Your task to perform on an android device: snooze an email in the gmail app Image 0: 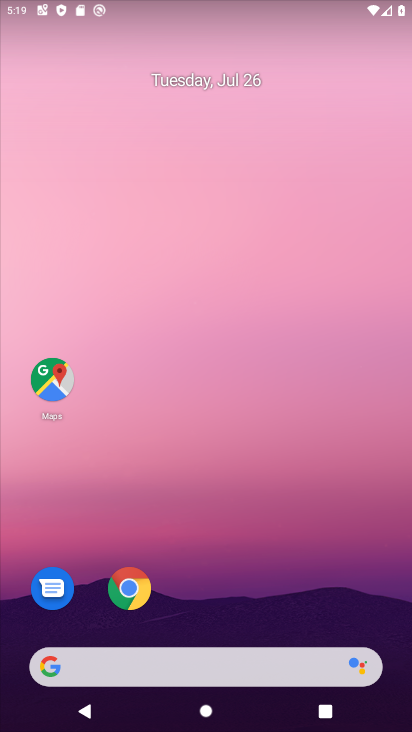
Step 0: drag from (232, 678) to (272, 107)
Your task to perform on an android device: snooze an email in the gmail app Image 1: 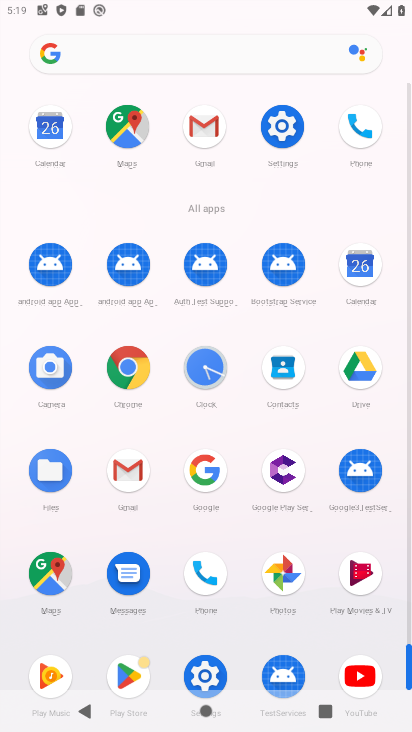
Step 1: click (139, 478)
Your task to perform on an android device: snooze an email in the gmail app Image 2: 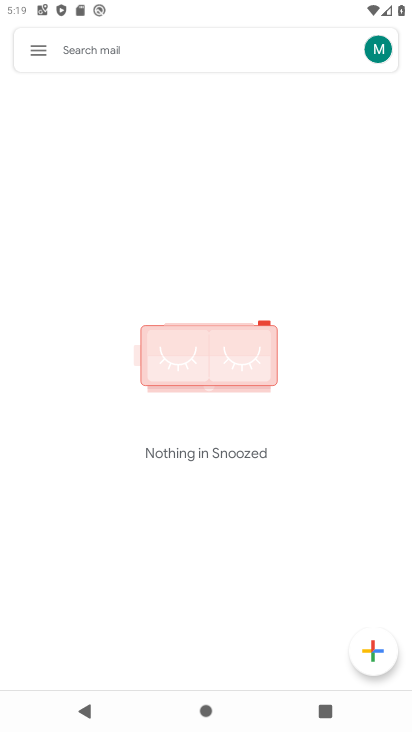
Step 2: click (40, 53)
Your task to perform on an android device: snooze an email in the gmail app Image 3: 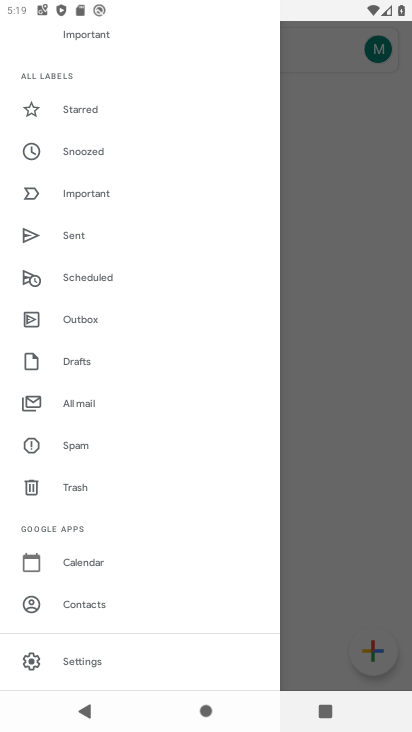
Step 3: click (86, 401)
Your task to perform on an android device: snooze an email in the gmail app Image 4: 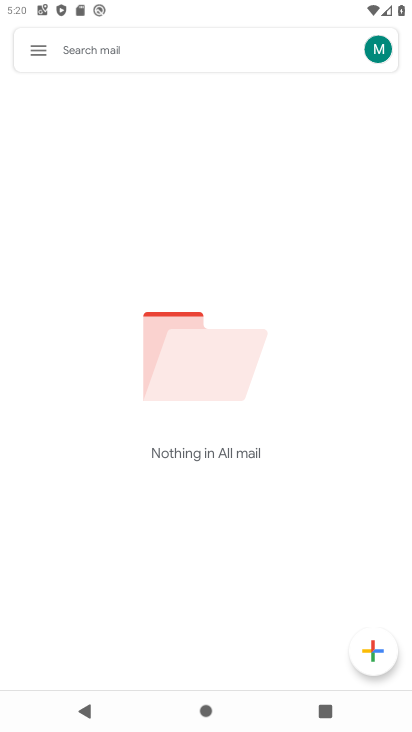
Step 4: task complete